Your task to perform on an android device: Go to Google Image 0: 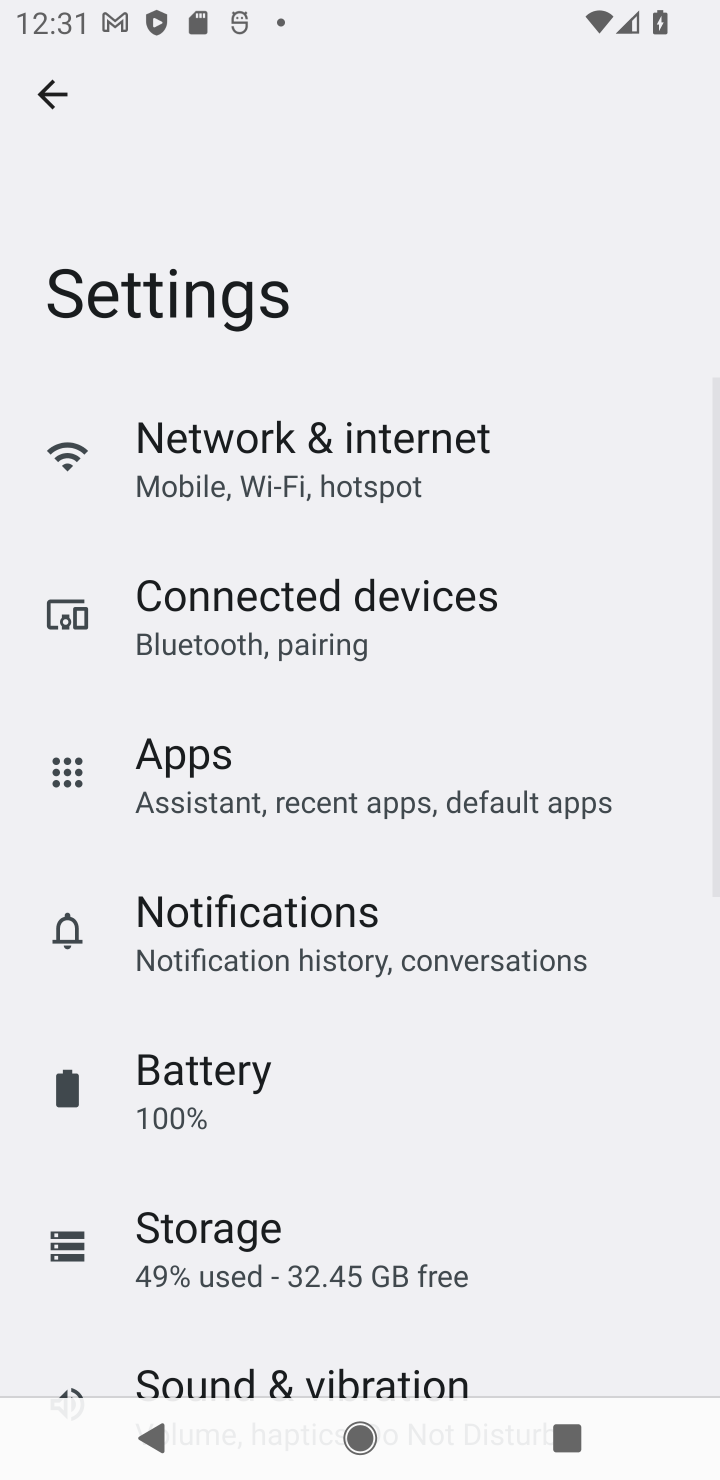
Step 0: press home button
Your task to perform on an android device: Go to Google Image 1: 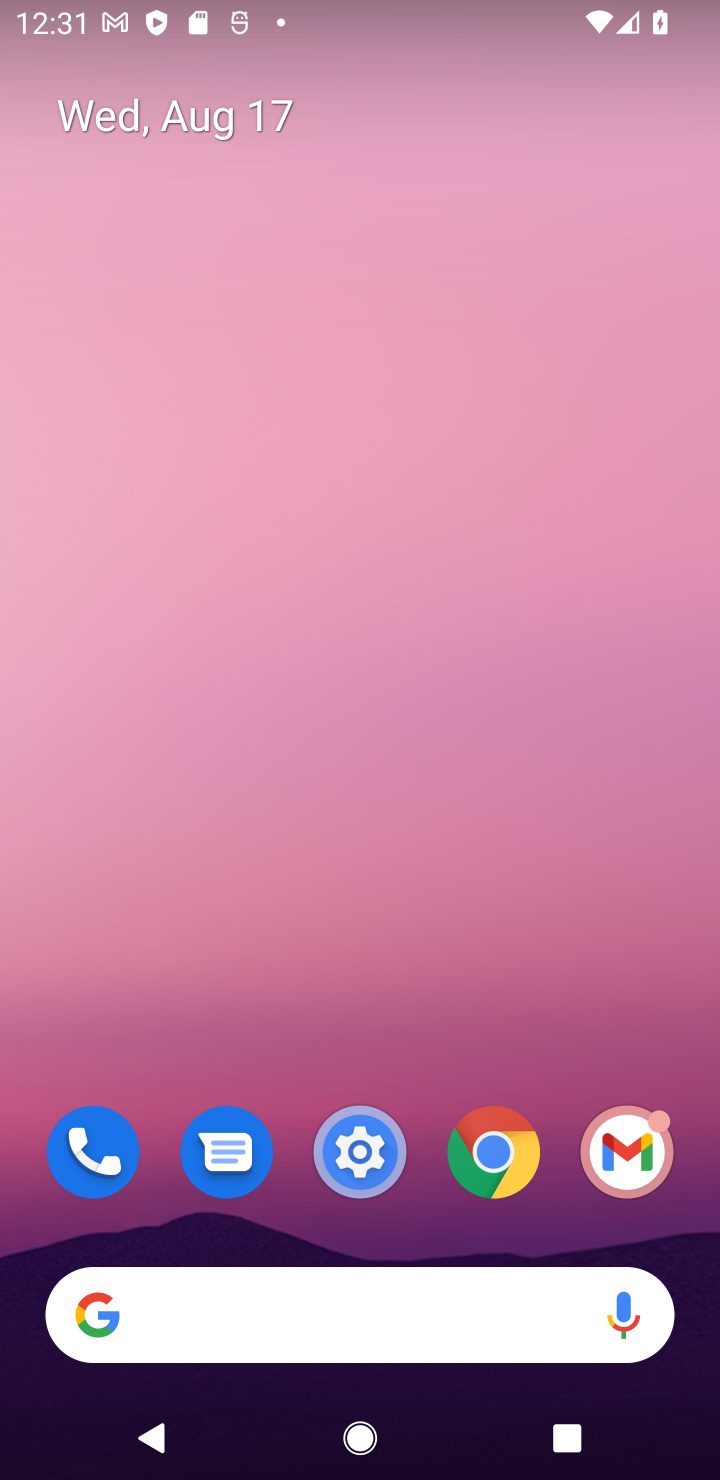
Step 1: drag from (603, 1202) to (319, 84)
Your task to perform on an android device: Go to Google Image 2: 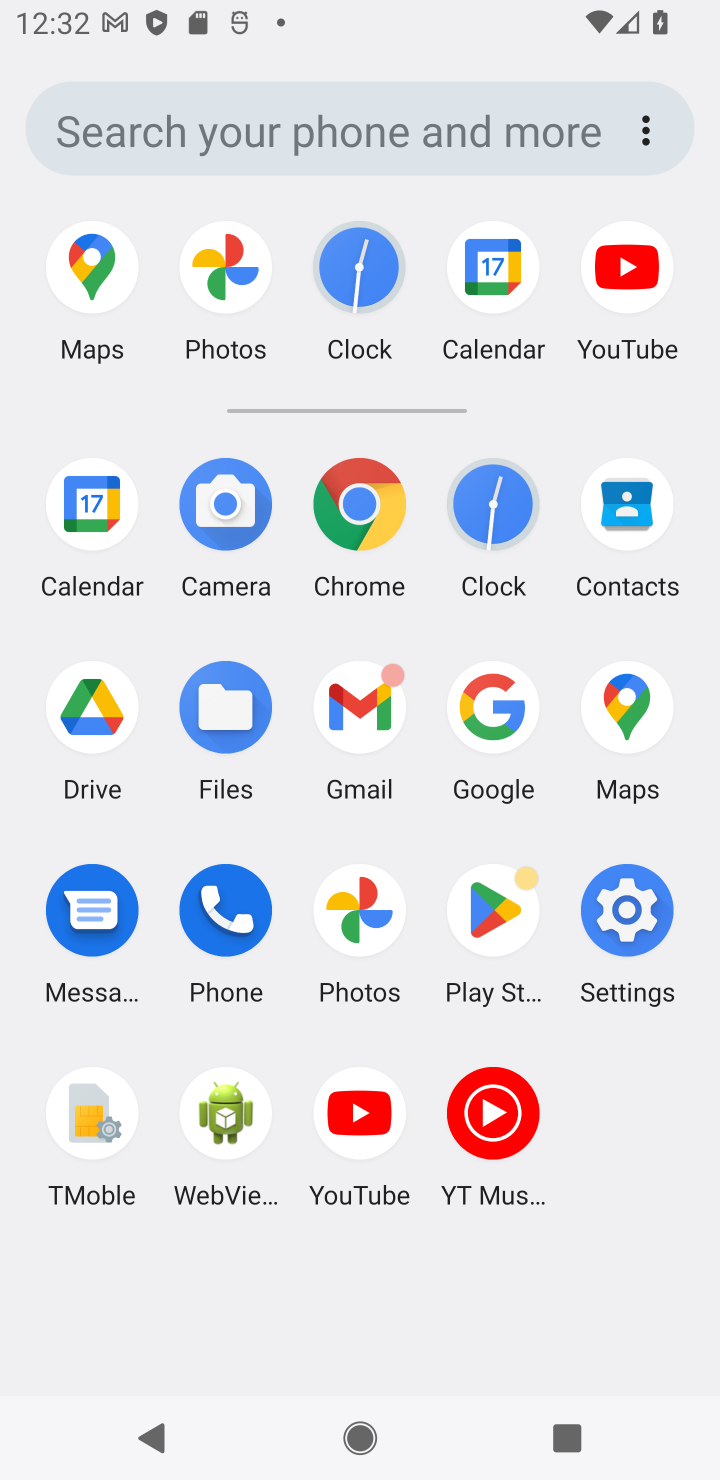
Step 2: click (464, 727)
Your task to perform on an android device: Go to Google Image 3: 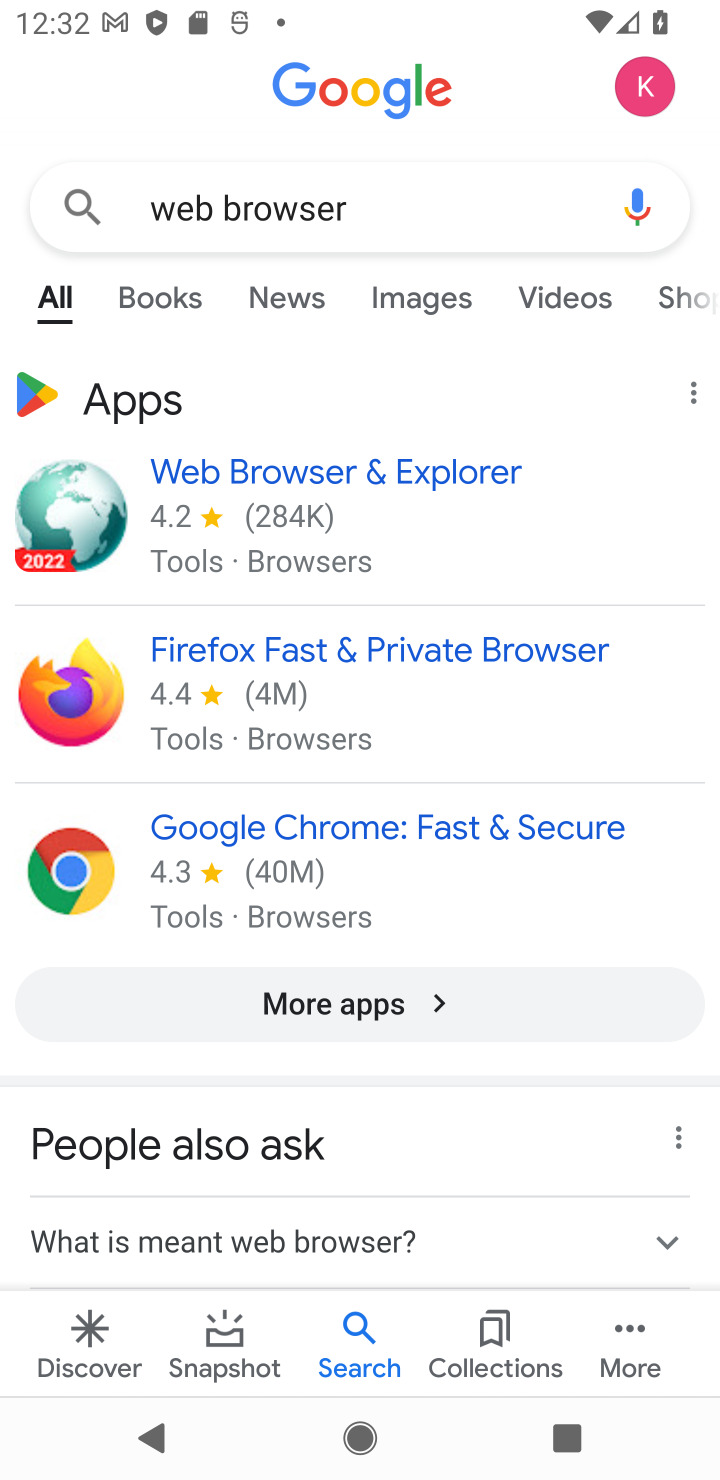
Step 3: task complete